Your task to perform on an android device: Is it going to rain this weekend? Image 0: 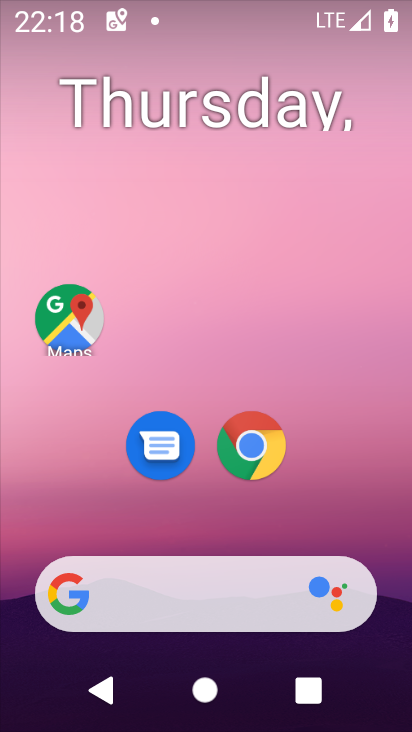
Step 0: drag from (239, 541) to (281, 218)
Your task to perform on an android device: Is it going to rain this weekend? Image 1: 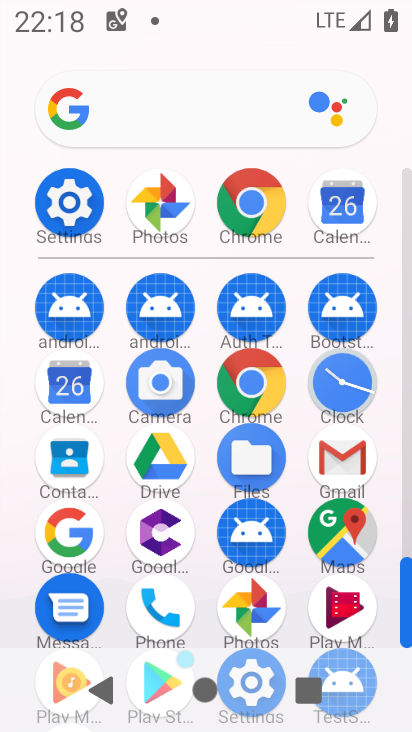
Step 1: drag from (200, 262) to (205, 102)
Your task to perform on an android device: Is it going to rain this weekend? Image 2: 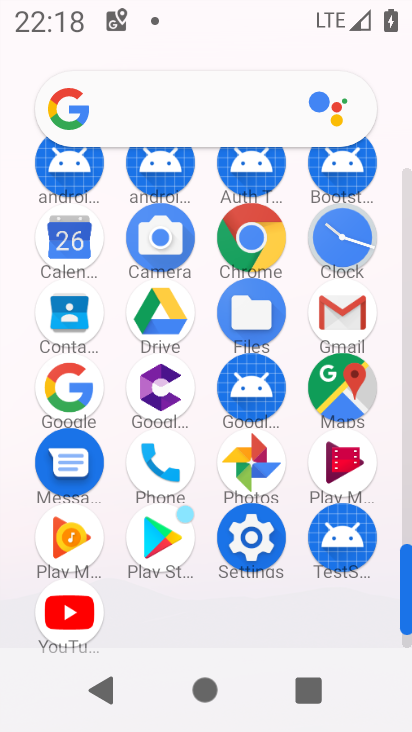
Step 2: click (56, 416)
Your task to perform on an android device: Is it going to rain this weekend? Image 3: 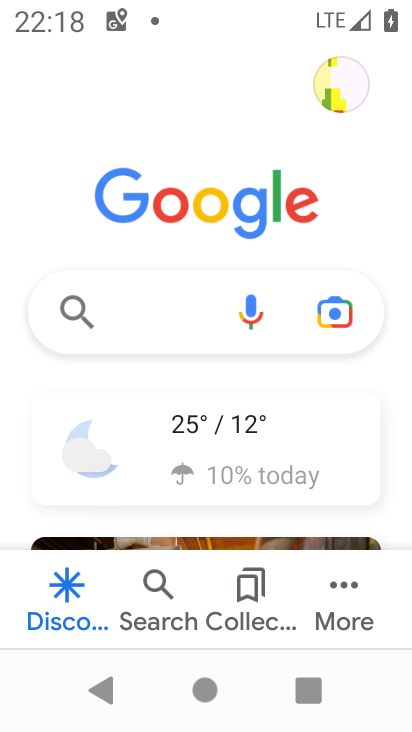
Step 3: click (182, 435)
Your task to perform on an android device: Is it going to rain this weekend? Image 4: 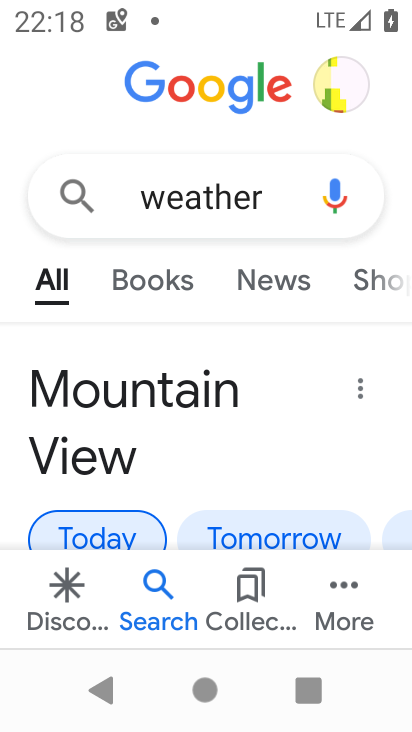
Step 4: drag from (196, 470) to (204, 305)
Your task to perform on an android device: Is it going to rain this weekend? Image 5: 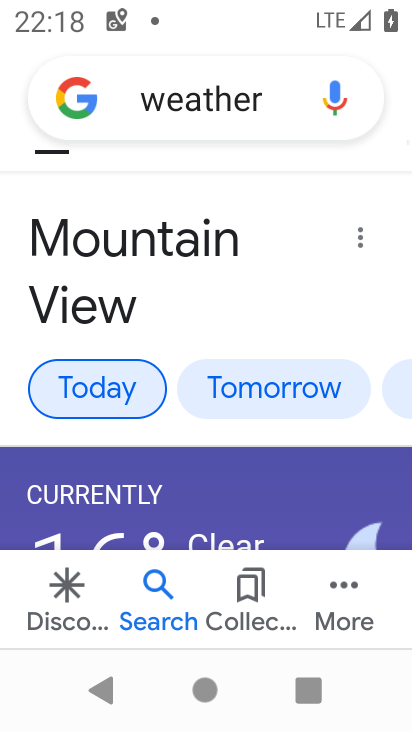
Step 5: drag from (275, 396) to (93, 392)
Your task to perform on an android device: Is it going to rain this weekend? Image 6: 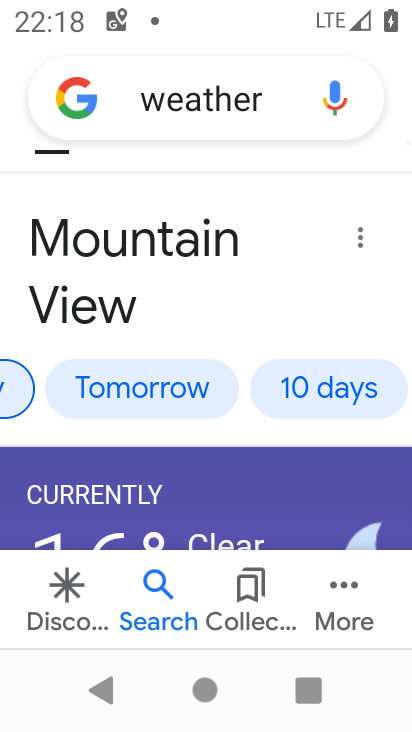
Step 6: click (287, 395)
Your task to perform on an android device: Is it going to rain this weekend? Image 7: 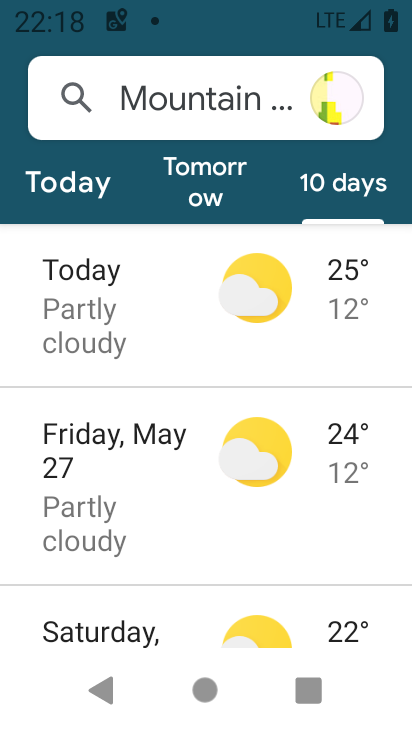
Step 7: task complete